Your task to perform on an android device: add a label to a message in the gmail app Image 0: 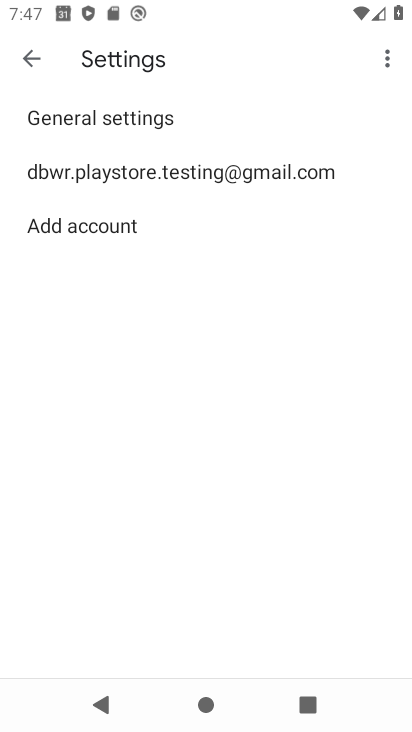
Step 0: press back button
Your task to perform on an android device: add a label to a message in the gmail app Image 1: 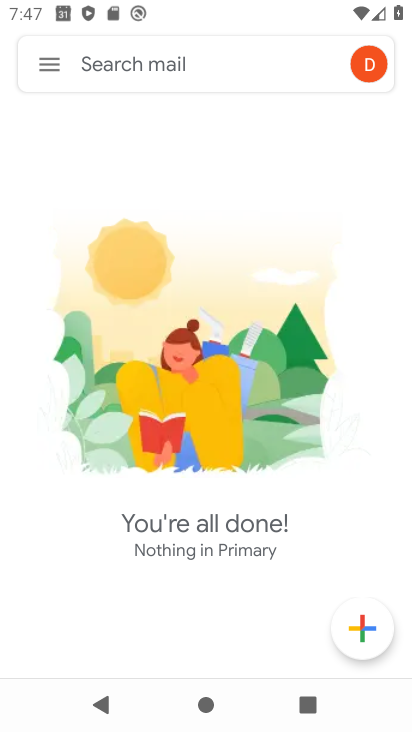
Step 1: press back button
Your task to perform on an android device: add a label to a message in the gmail app Image 2: 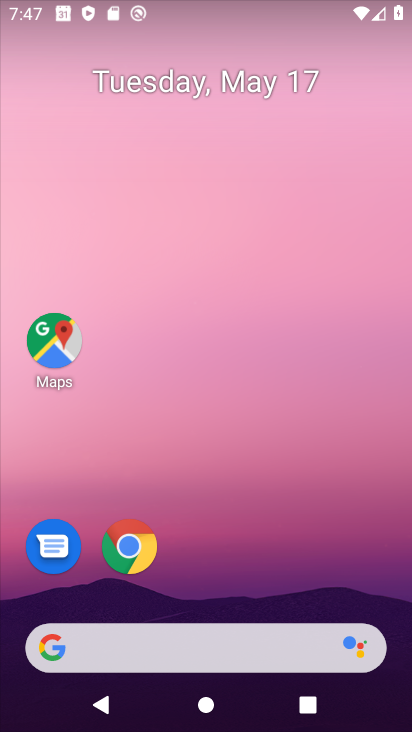
Step 2: drag from (221, 552) to (213, 255)
Your task to perform on an android device: add a label to a message in the gmail app Image 3: 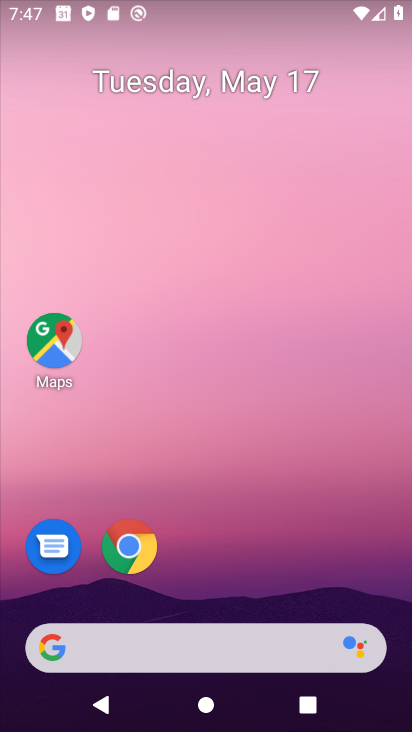
Step 3: drag from (218, 542) to (176, 66)
Your task to perform on an android device: add a label to a message in the gmail app Image 4: 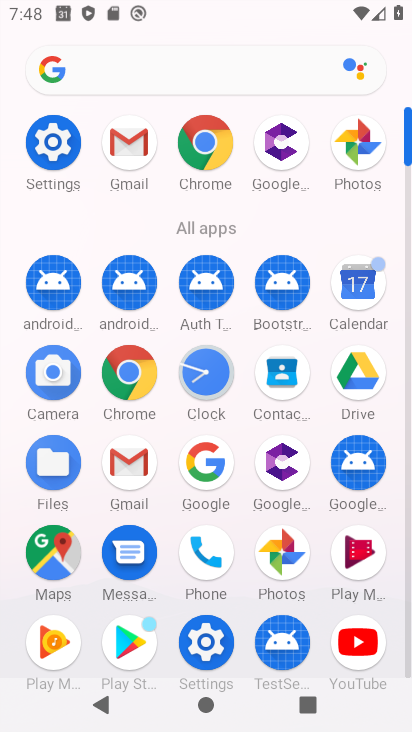
Step 4: click (125, 462)
Your task to perform on an android device: add a label to a message in the gmail app Image 5: 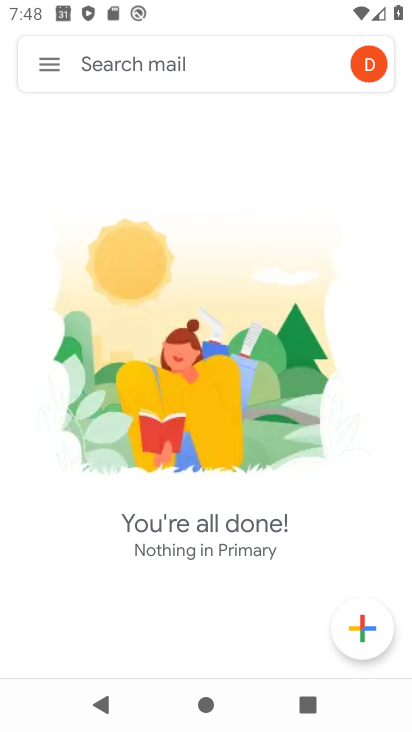
Step 5: click (53, 69)
Your task to perform on an android device: add a label to a message in the gmail app Image 6: 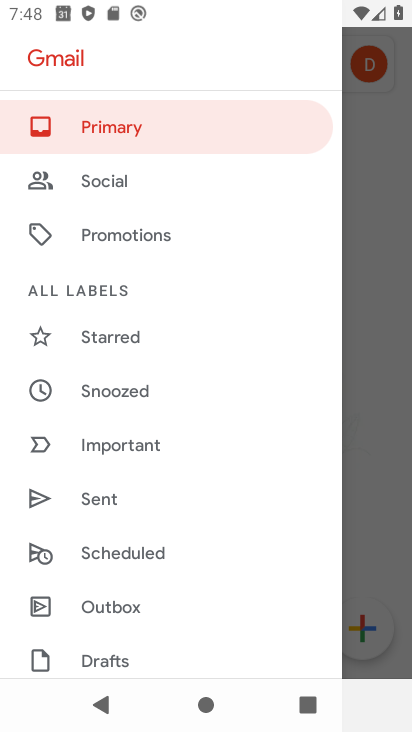
Step 6: click (129, 392)
Your task to perform on an android device: add a label to a message in the gmail app Image 7: 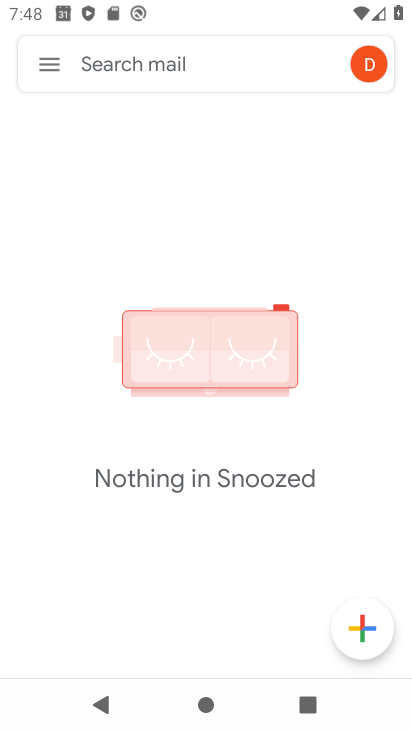
Step 7: click (46, 64)
Your task to perform on an android device: add a label to a message in the gmail app Image 8: 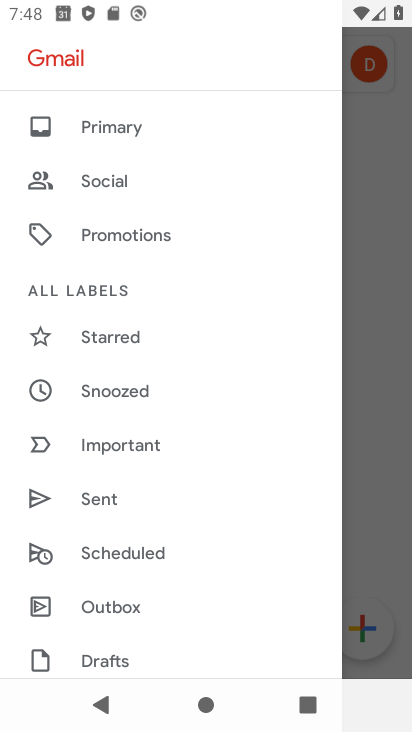
Step 8: drag from (109, 476) to (122, 390)
Your task to perform on an android device: add a label to a message in the gmail app Image 9: 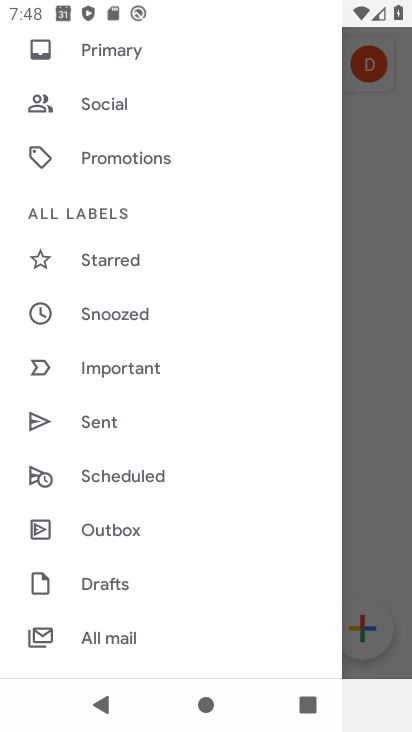
Step 9: drag from (99, 496) to (122, 408)
Your task to perform on an android device: add a label to a message in the gmail app Image 10: 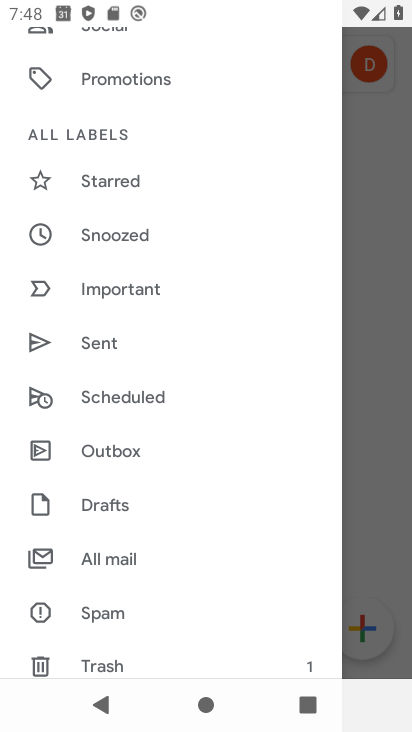
Step 10: drag from (98, 574) to (109, 487)
Your task to perform on an android device: add a label to a message in the gmail app Image 11: 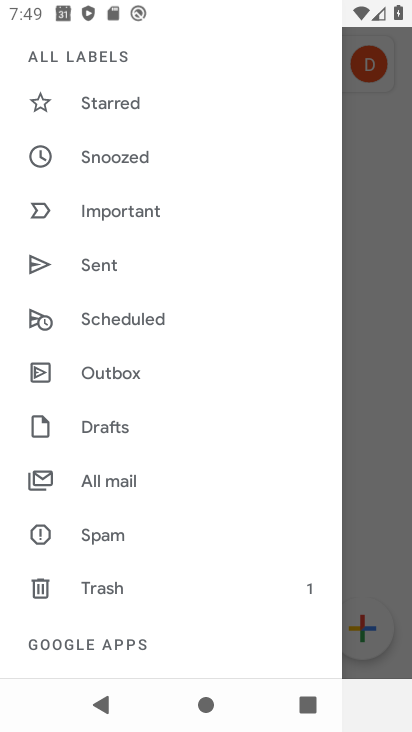
Step 11: click (121, 482)
Your task to perform on an android device: add a label to a message in the gmail app Image 12: 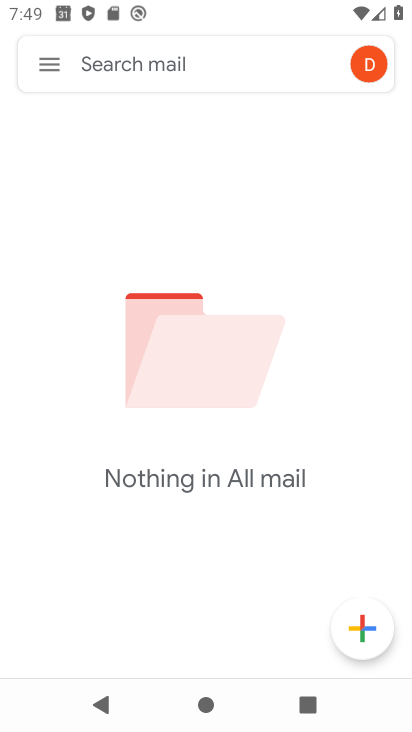
Step 12: task complete